Your task to perform on an android device: Play the new Taylor Swift video on YouTube Image 0: 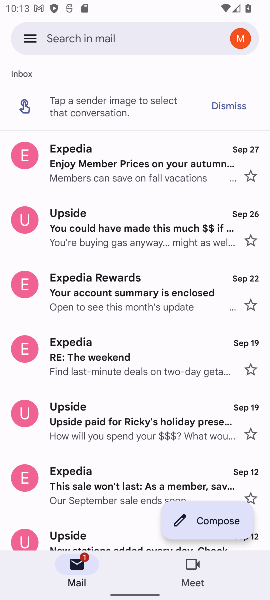
Step 0: press home button
Your task to perform on an android device: Play the new Taylor Swift video on YouTube Image 1: 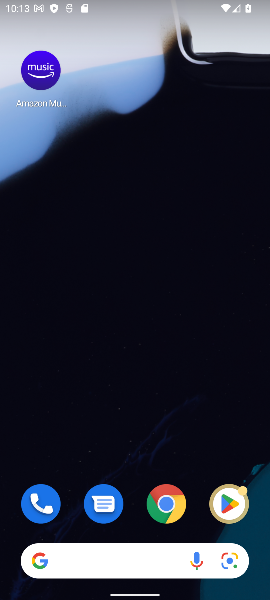
Step 1: drag from (200, 535) to (201, 115)
Your task to perform on an android device: Play the new Taylor Swift video on YouTube Image 2: 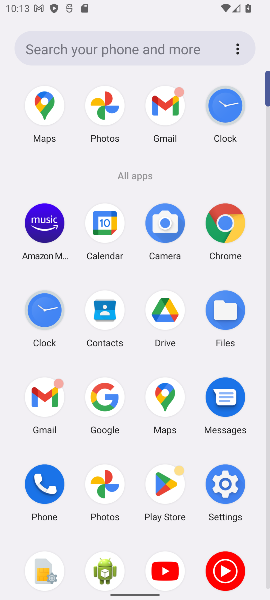
Step 2: click (163, 573)
Your task to perform on an android device: Play the new Taylor Swift video on YouTube Image 3: 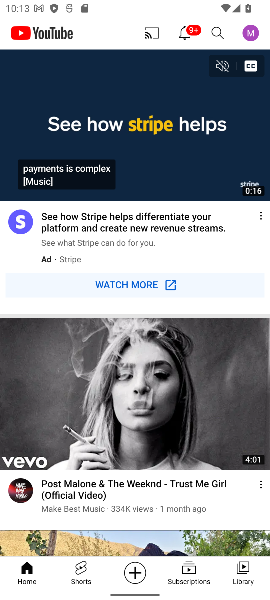
Step 3: click (219, 29)
Your task to perform on an android device: Play the new Taylor Swift video on YouTube Image 4: 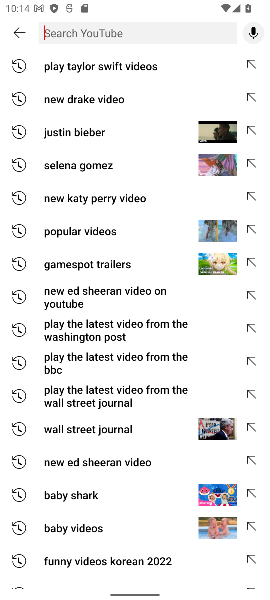
Step 4: type "new Taylor Swift video"
Your task to perform on an android device: Play the new Taylor Swift video on YouTube Image 5: 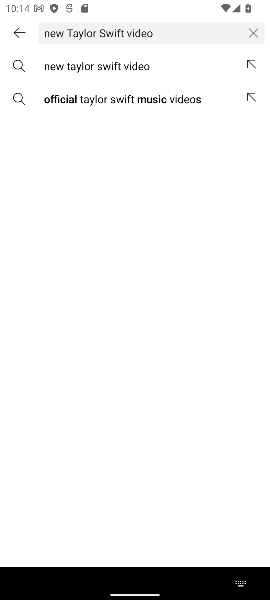
Step 5: click (75, 61)
Your task to perform on an android device: Play the new Taylor Swift video on YouTube Image 6: 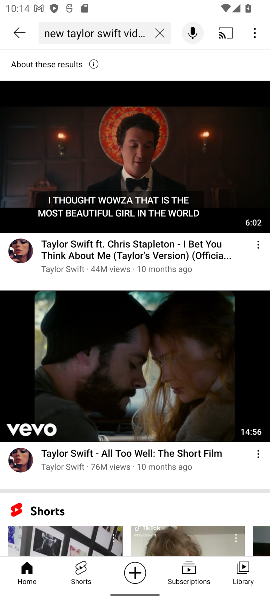
Step 6: task complete